Your task to perform on an android device: Turn off the flashlight Image 0: 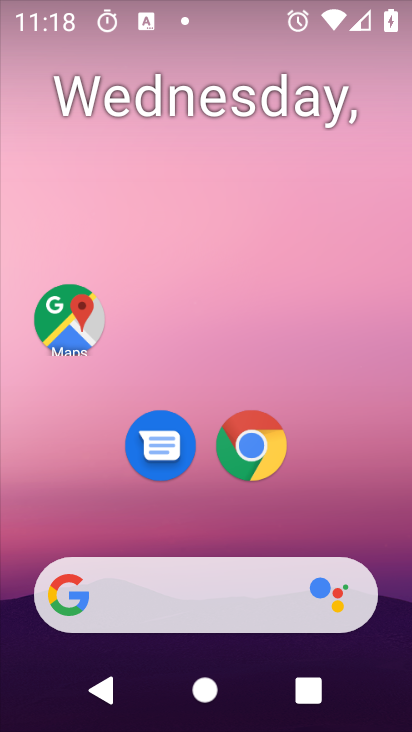
Step 0: drag from (355, 547) to (286, 171)
Your task to perform on an android device: Turn off the flashlight Image 1: 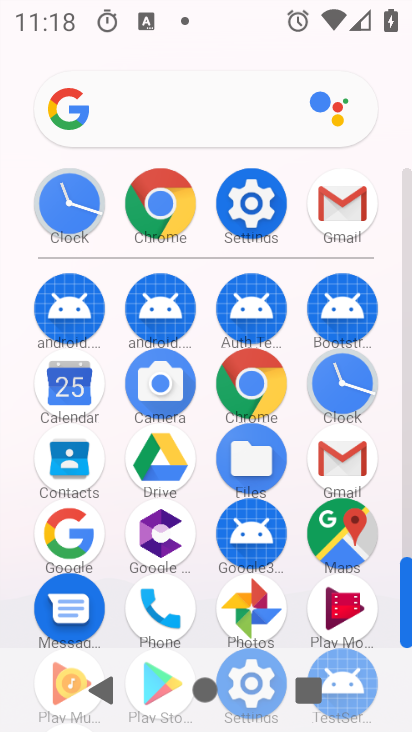
Step 1: click (221, 239)
Your task to perform on an android device: Turn off the flashlight Image 2: 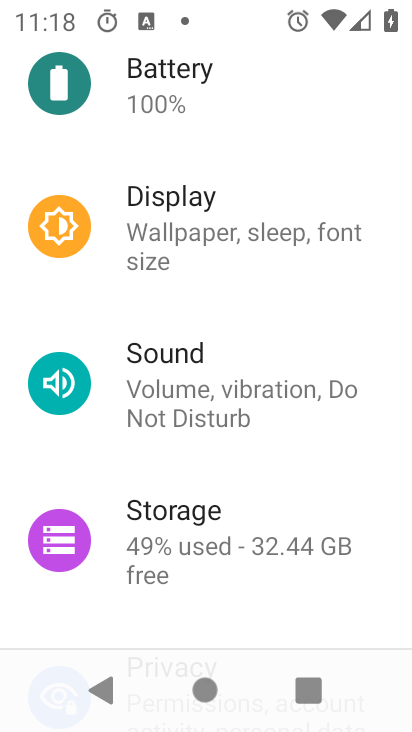
Step 2: task complete